Your task to perform on an android device: Open CNN.com Image 0: 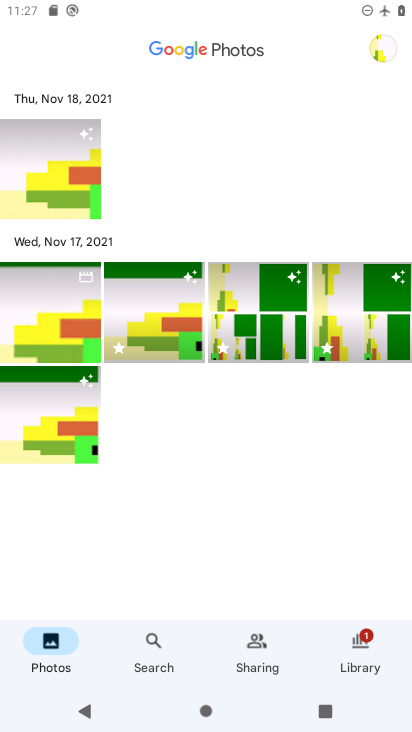
Step 0: press home button
Your task to perform on an android device: Open CNN.com Image 1: 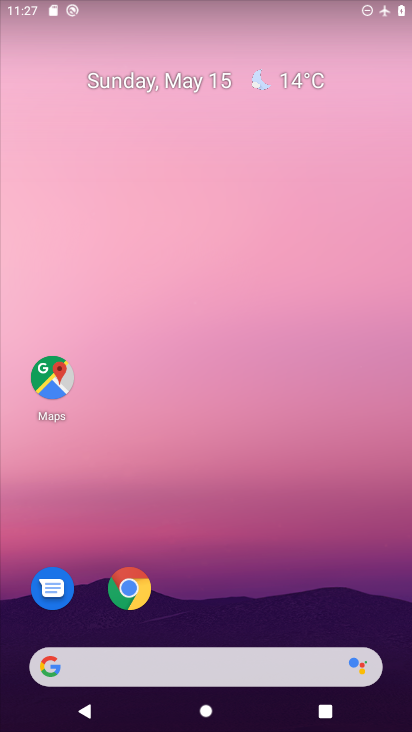
Step 1: click (133, 587)
Your task to perform on an android device: Open CNN.com Image 2: 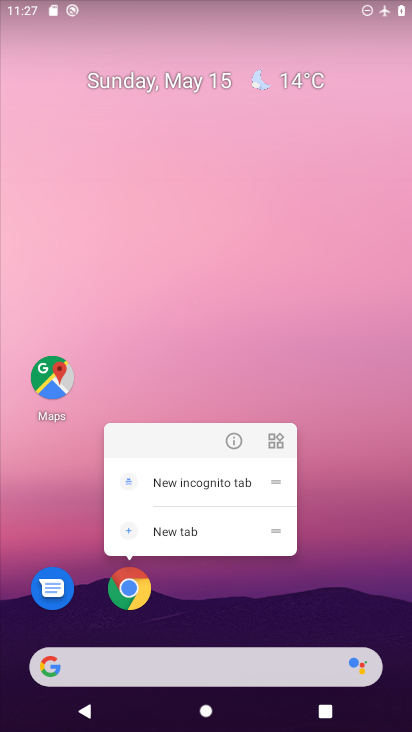
Step 2: click (135, 592)
Your task to perform on an android device: Open CNN.com Image 3: 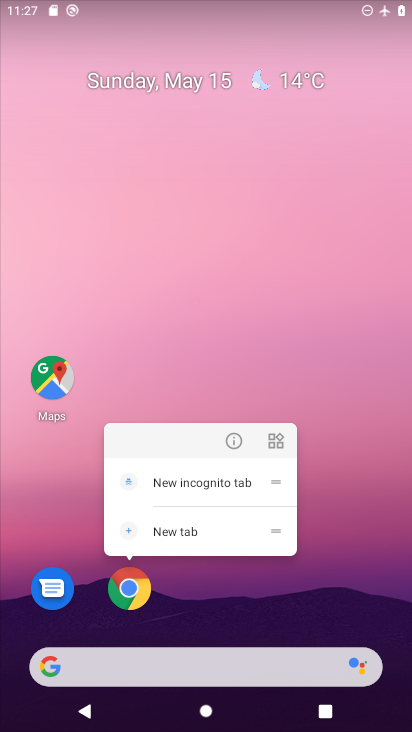
Step 3: click (138, 596)
Your task to perform on an android device: Open CNN.com Image 4: 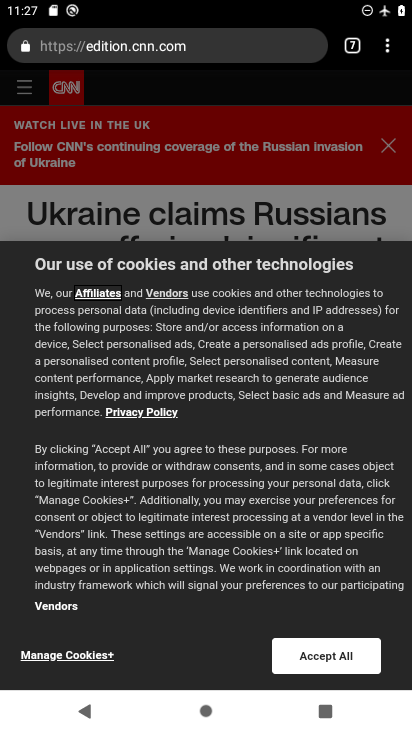
Step 4: task complete